Your task to perform on an android device: See recent photos Image 0: 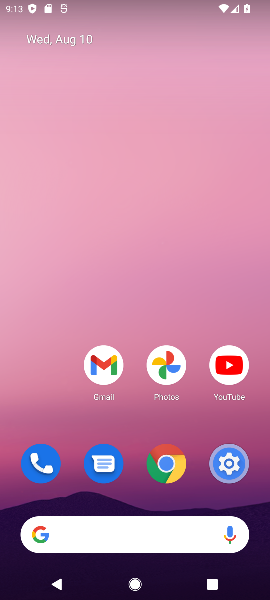
Step 0: click (162, 372)
Your task to perform on an android device: See recent photos Image 1: 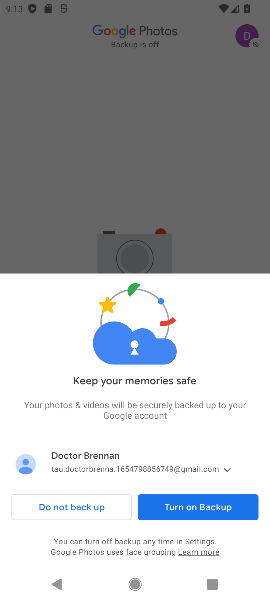
Step 1: click (74, 505)
Your task to perform on an android device: See recent photos Image 2: 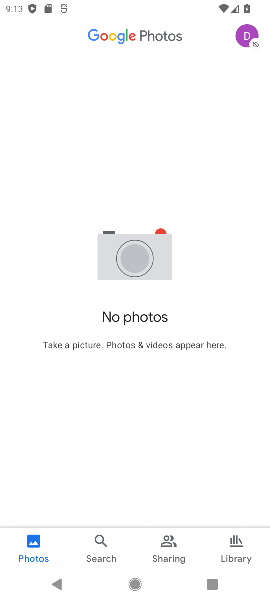
Step 2: task complete